Your task to perform on an android device: check android version Image 0: 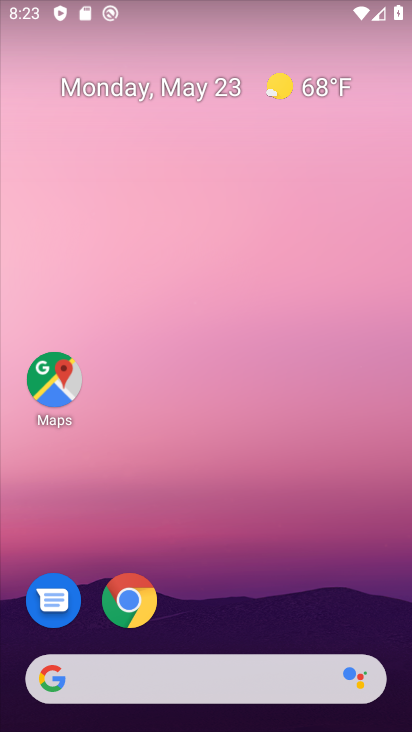
Step 0: drag from (9, 690) to (262, 133)
Your task to perform on an android device: check android version Image 1: 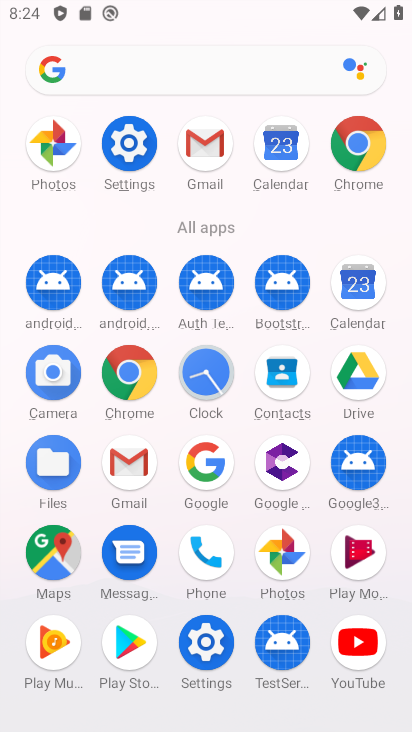
Step 1: click (125, 160)
Your task to perform on an android device: check android version Image 2: 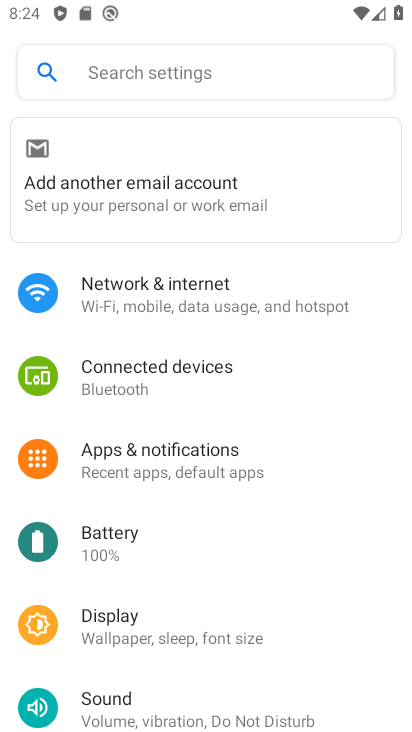
Step 2: drag from (3, 423) to (256, 142)
Your task to perform on an android device: check android version Image 3: 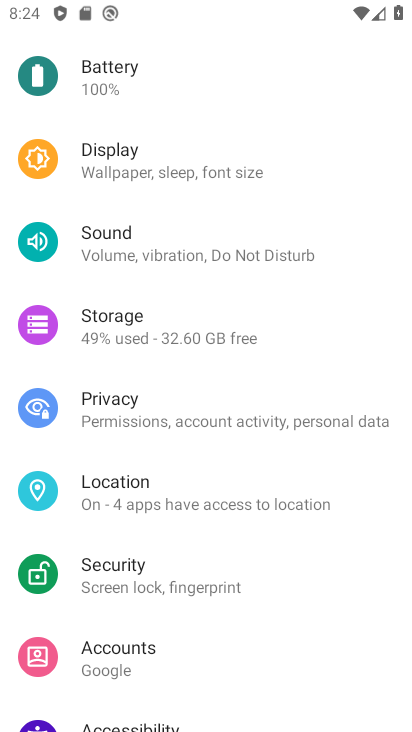
Step 3: drag from (3, 695) to (289, 173)
Your task to perform on an android device: check android version Image 4: 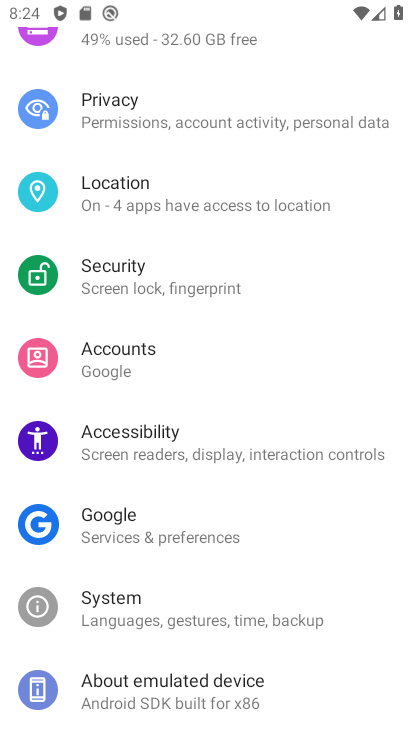
Step 4: click (137, 679)
Your task to perform on an android device: check android version Image 5: 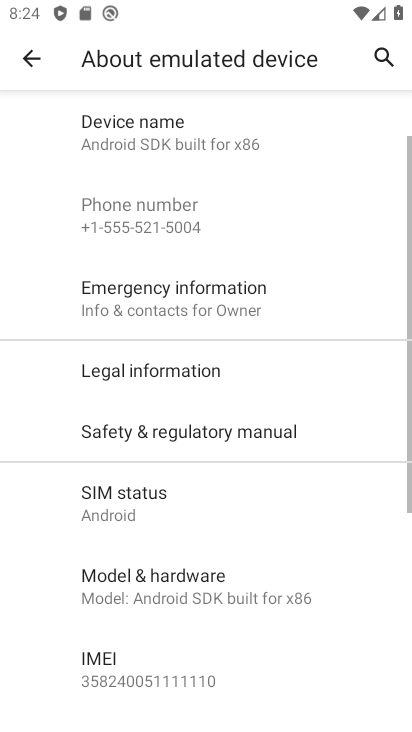
Step 5: drag from (22, 616) to (218, 245)
Your task to perform on an android device: check android version Image 6: 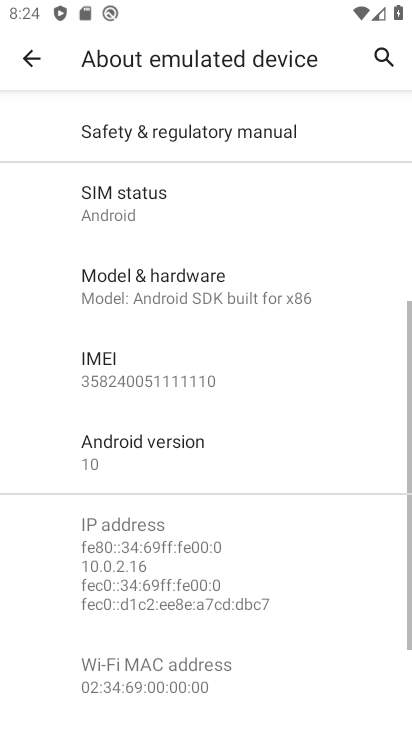
Step 6: click (125, 444)
Your task to perform on an android device: check android version Image 7: 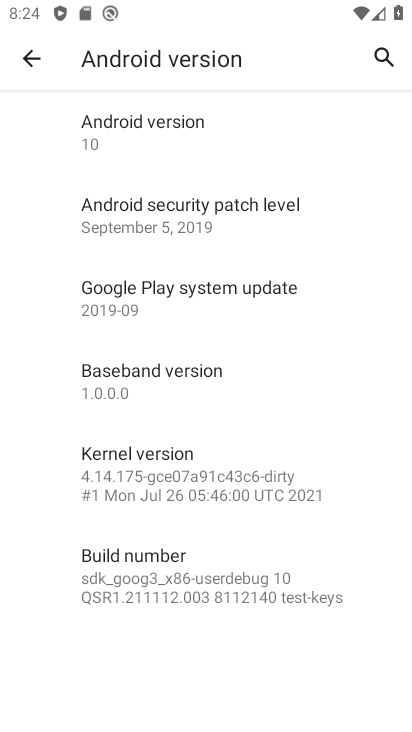
Step 7: task complete